Your task to perform on an android device: Open Google Maps and go to "Timeline" Image 0: 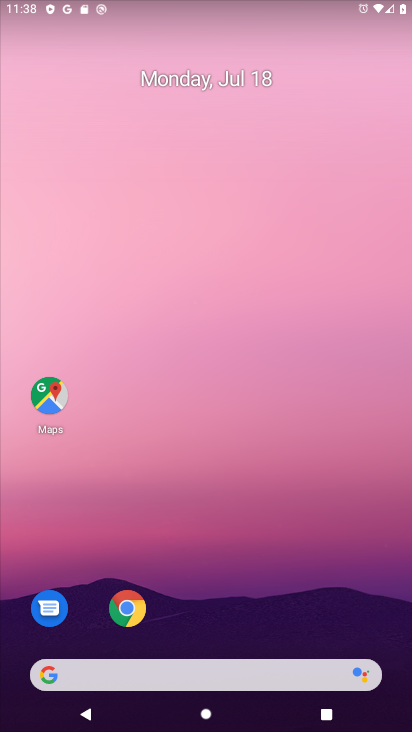
Step 0: click (51, 397)
Your task to perform on an android device: Open Google Maps and go to "Timeline" Image 1: 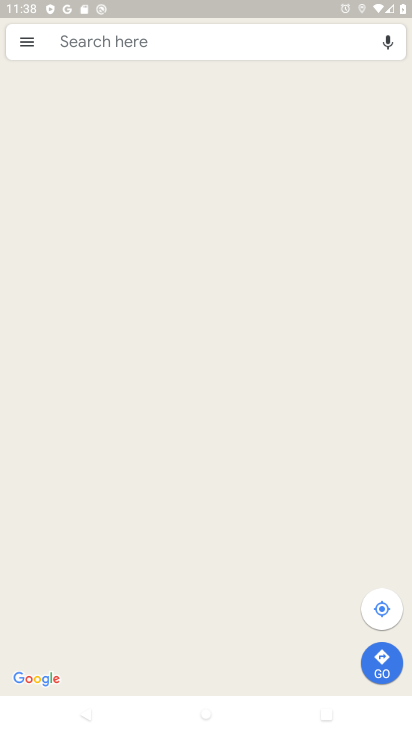
Step 1: click (22, 41)
Your task to perform on an android device: Open Google Maps and go to "Timeline" Image 2: 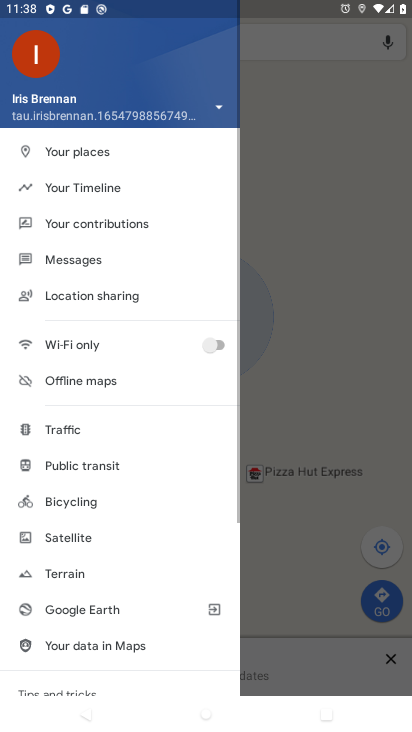
Step 2: click (84, 179)
Your task to perform on an android device: Open Google Maps and go to "Timeline" Image 3: 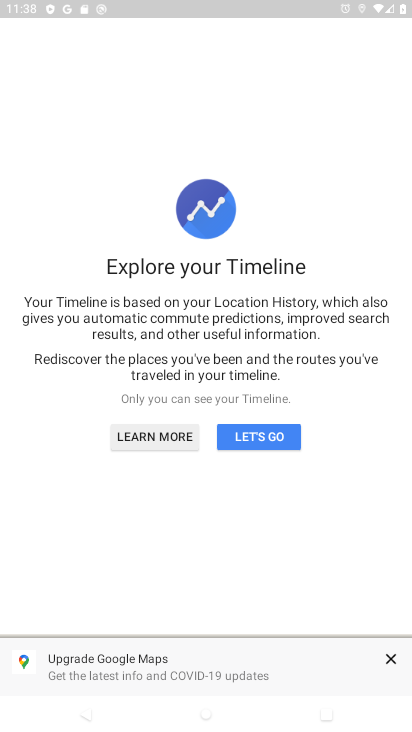
Step 3: click (251, 437)
Your task to perform on an android device: Open Google Maps and go to "Timeline" Image 4: 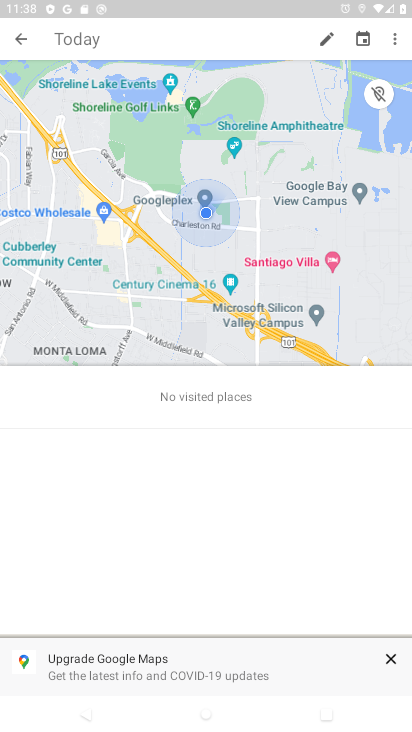
Step 4: task complete